Your task to perform on an android device: check data usage Image 0: 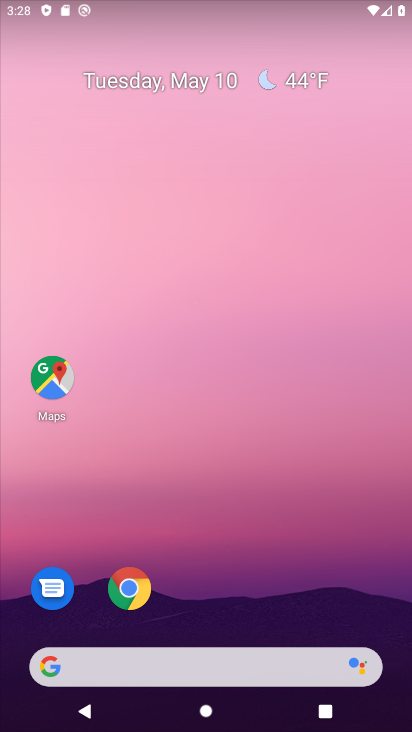
Step 0: drag from (291, 587) to (341, 4)
Your task to perform on an android device: check data usage Image 1: 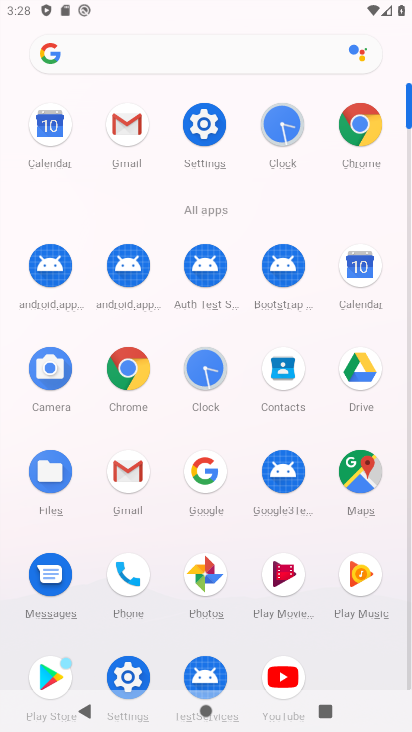
Step 1: click (198, 123)
Your task to perform on an android device: check data usage Image 2: 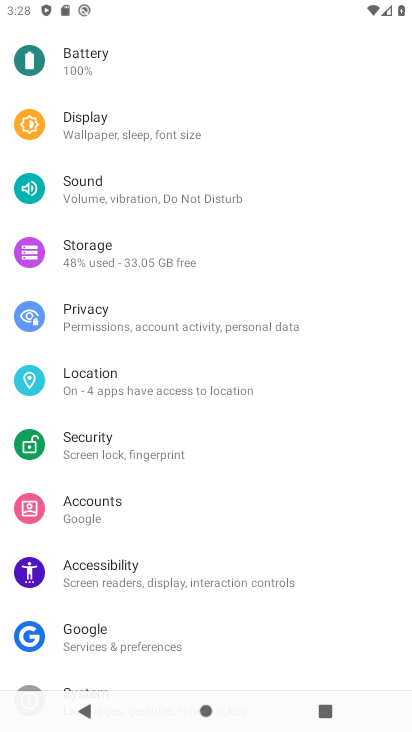
Step 2: drag from (176, 141) to (165, 433)
Your task to perform on an android device: check data usage Image 3: 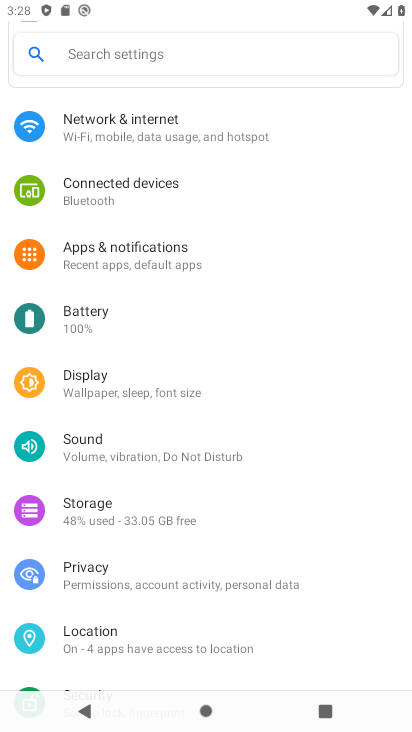
Step 3: click (123, 129)
Your task to perform on an android device: check data usage Image 4: 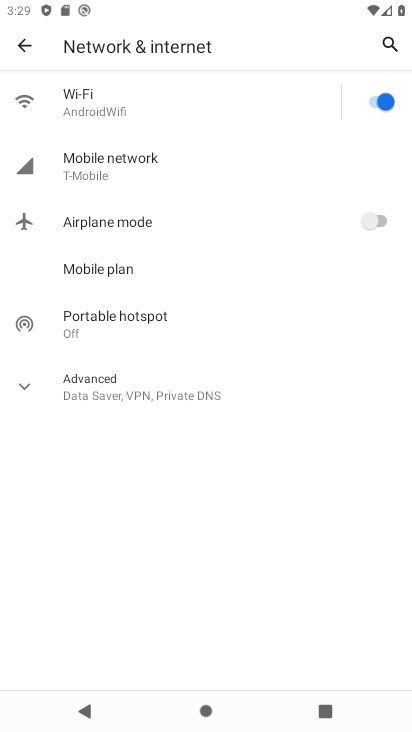
Step 4: click (181, 156)
Your task to perform on an android device: check data usage Image 5: 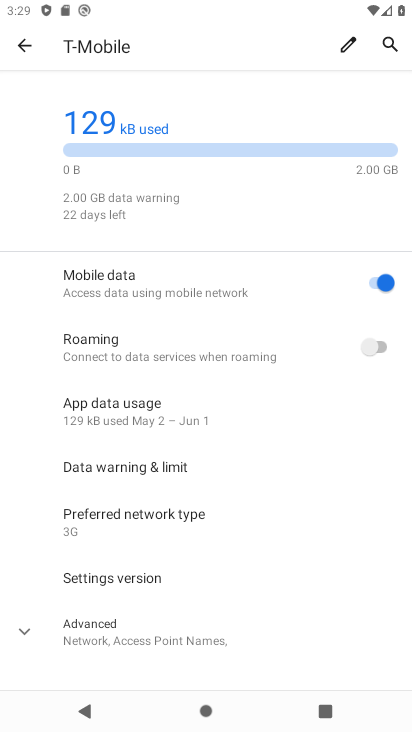
Step 5: task complete